Your task to perform on an android device: Search for vegetarian restaurants on Maps Image 0: 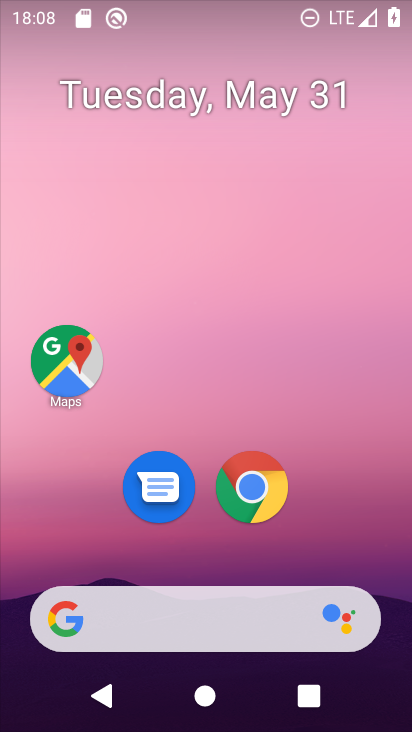
Step 0: click (68, 362)
Your task to perform on an android device: Search for vegetarian restaurants on Maps Image 1: 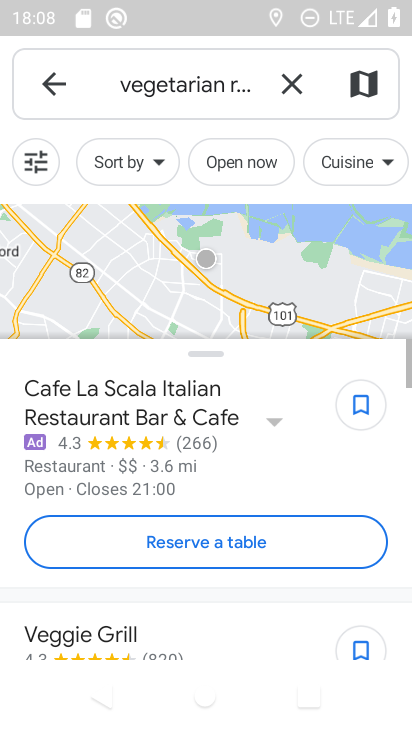
Step 1: task complete